Your task to perform on an android device: toggle notifications settings in the gmail app Image 0: 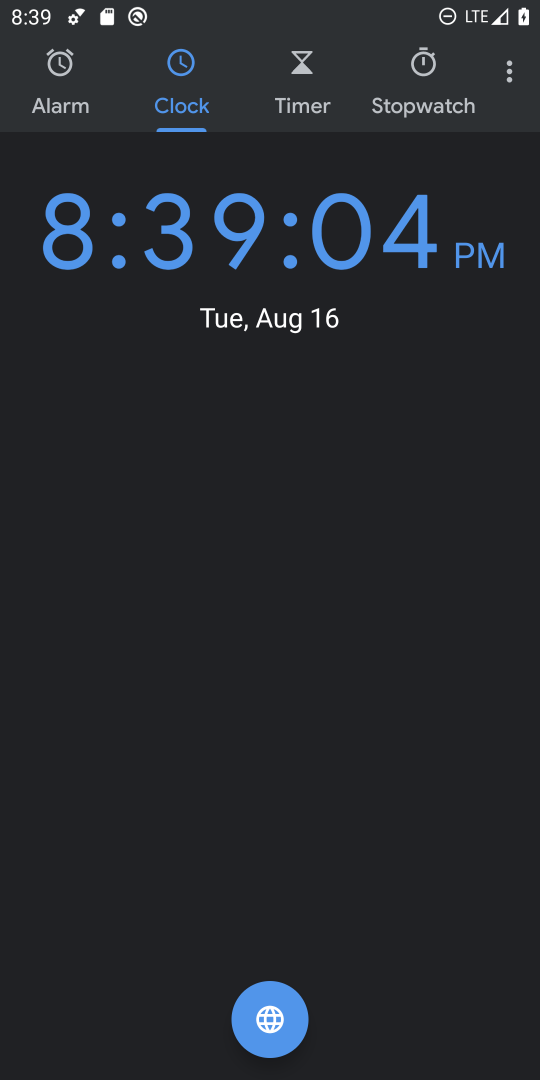
Step 0: press home button
Your task to perform on an android device: toggle notifications settings in the gmail app Image 1: 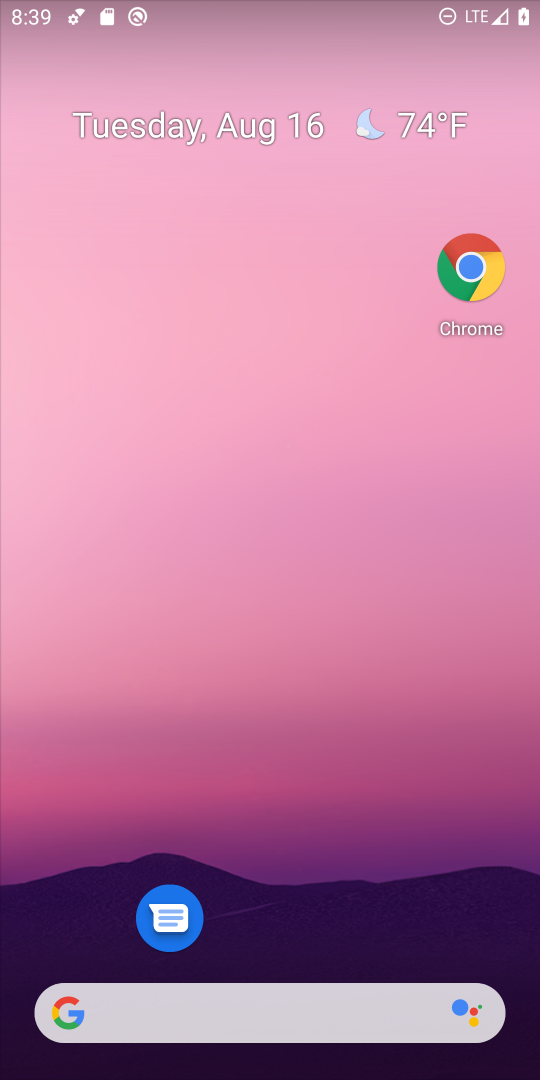
Step 1: drag from (282, 983) to (252, 326)
Your task to perform on an android device: toggle notifications settings in the gmail app Image 2: 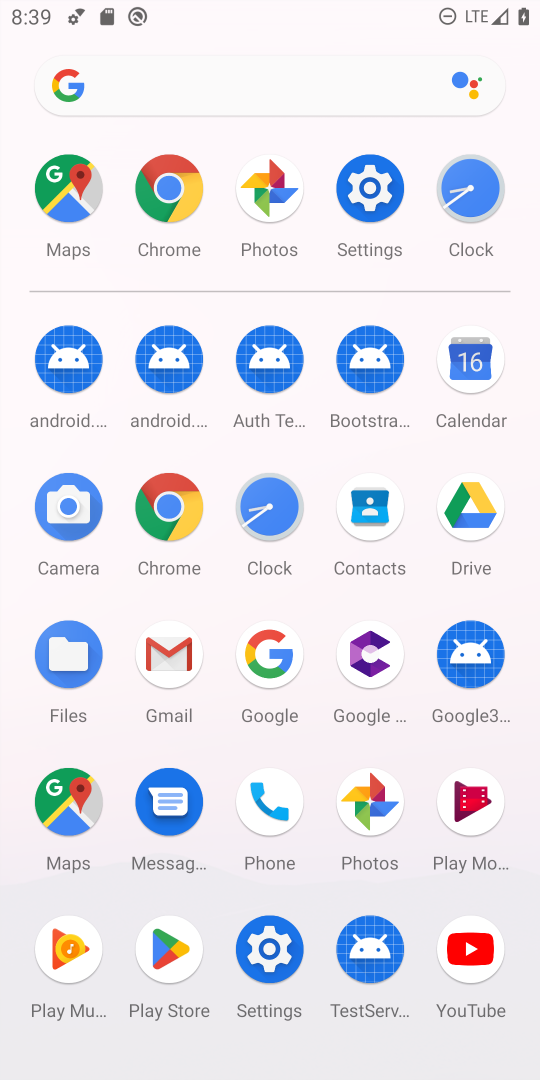
Step 2: click (184, 686)
Your task to perform on an android device: toggle notifications settings in the gmail app Image 3: 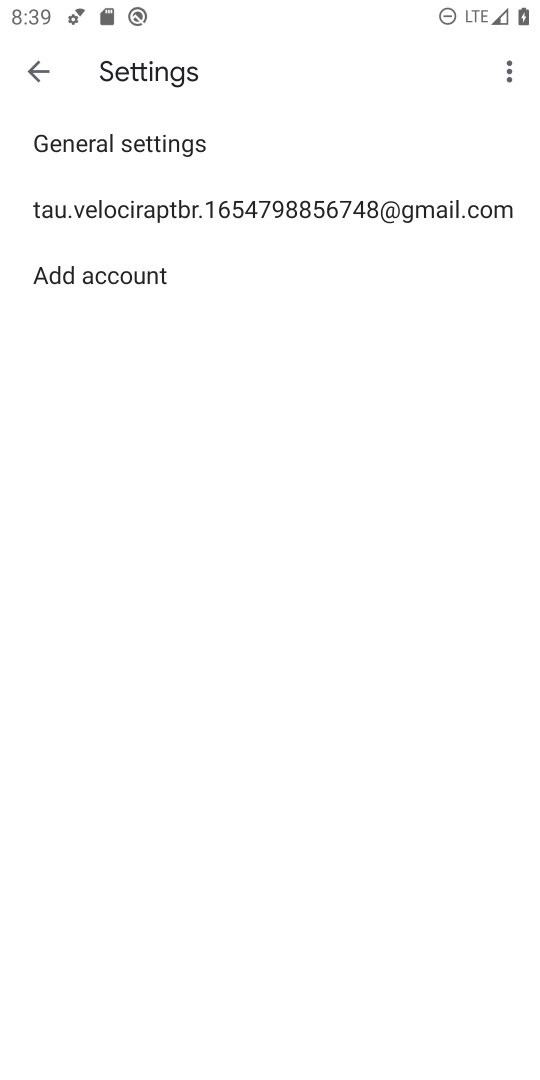
Step 3: click (151, 143)
Your task to perform on an android device: toggle notifications settings in the gmail app Image 4: 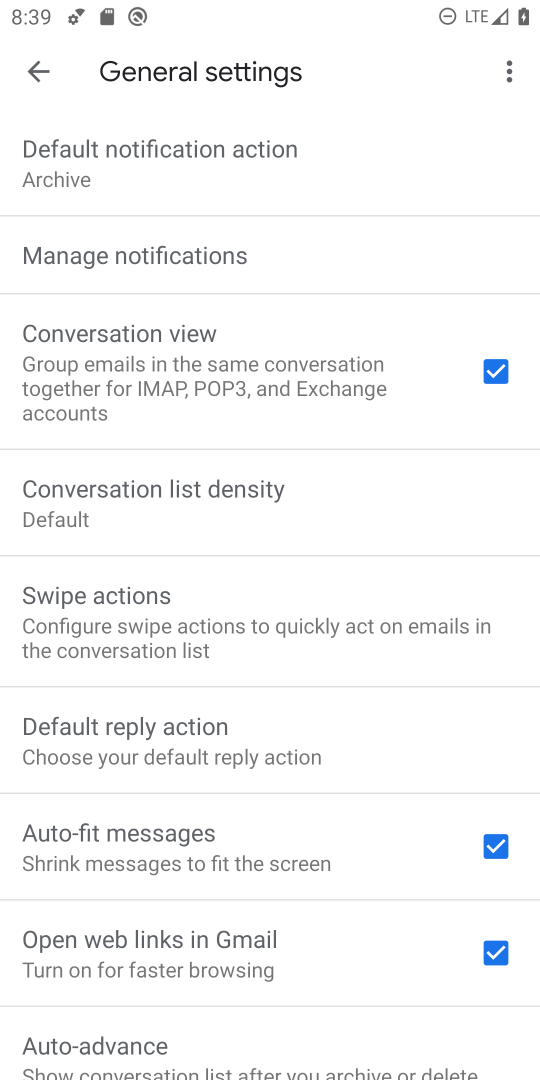
Step 4: click (176, 249)
Your task to perform on an android device: toggle notifications settings in the gmail app Image 5: 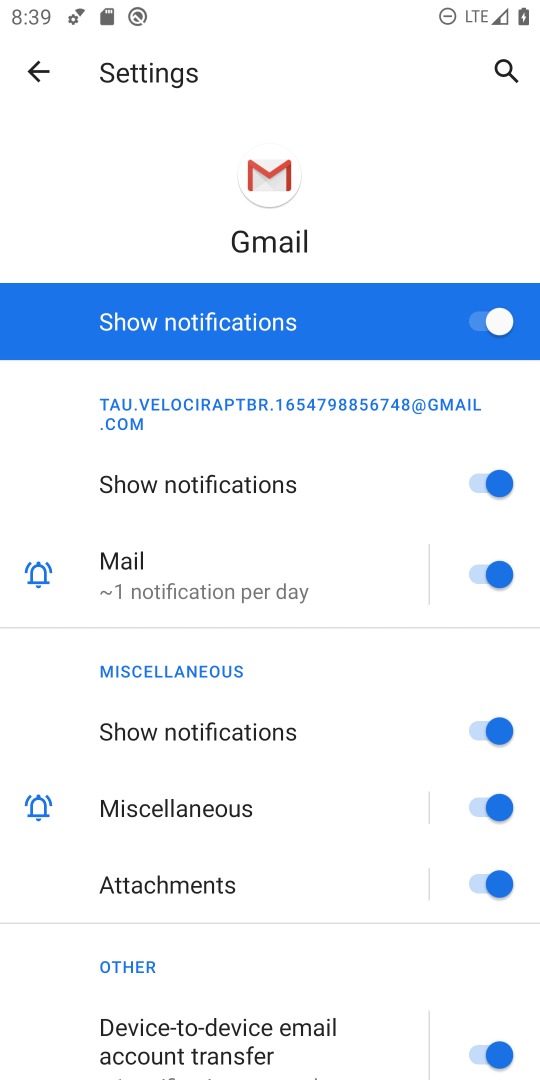
Step 5: click (495, 312)
Your task to perform on an android device: toggle notifications settings in the gmail app Image 6: 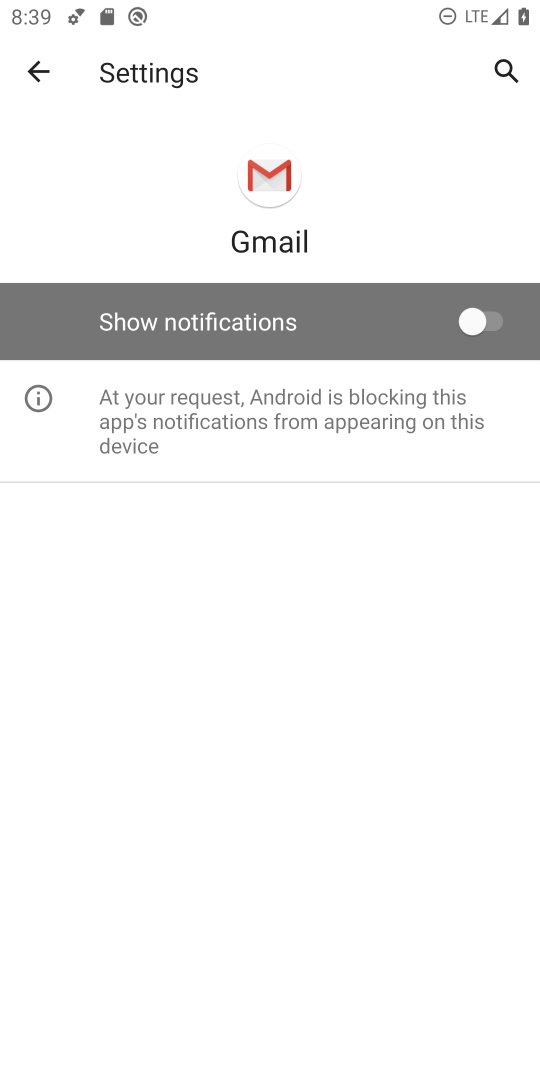
Step 6: task complete